Your task to perform on an android device: Open location settings Image 0: 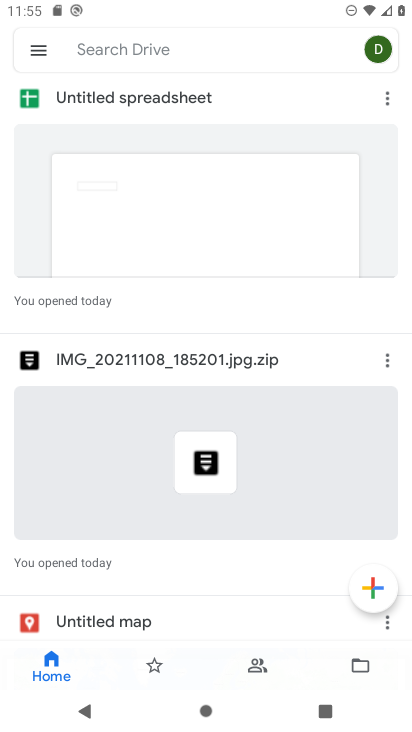
Step 0: press home button
Your task to perform on an android device: Open location settings Image 1: 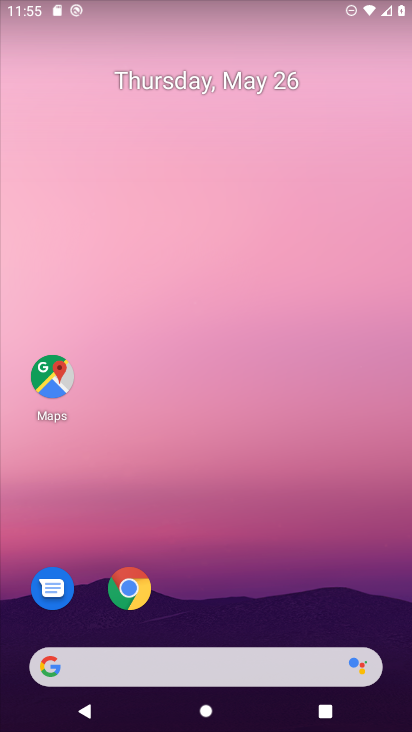
Step 1: drag from (376, 623) to (342, 58)
Your task to perform on an android device: Open location settings Image 2: 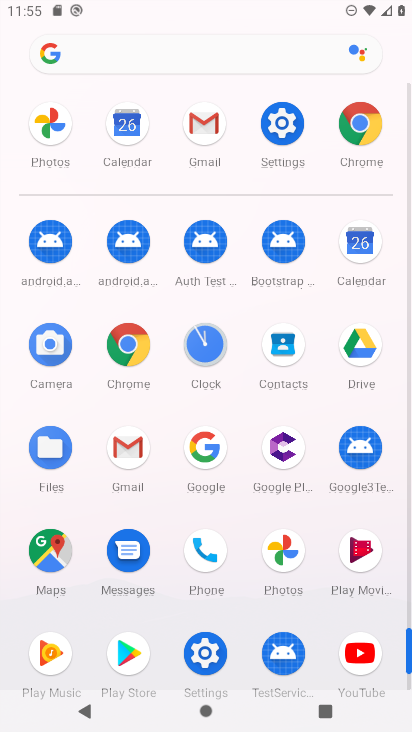
Step 2: click (203, 653)
Your task to perform on an android device: Open location settings Image 3: 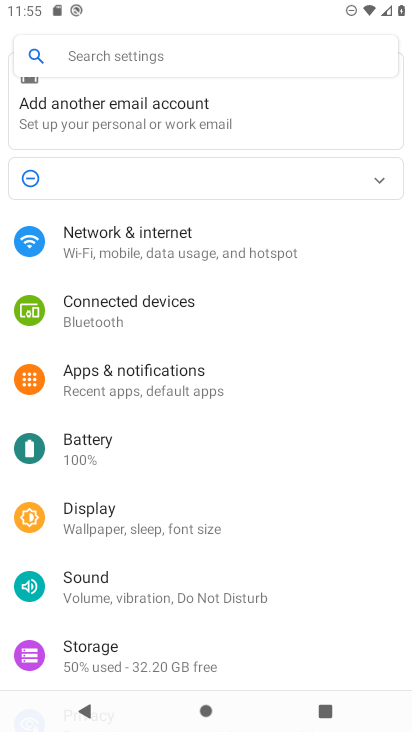
Step 3: drag from (317, 612) to (285, 113)
Your task to perform on an android device: Open location settings Image 4: 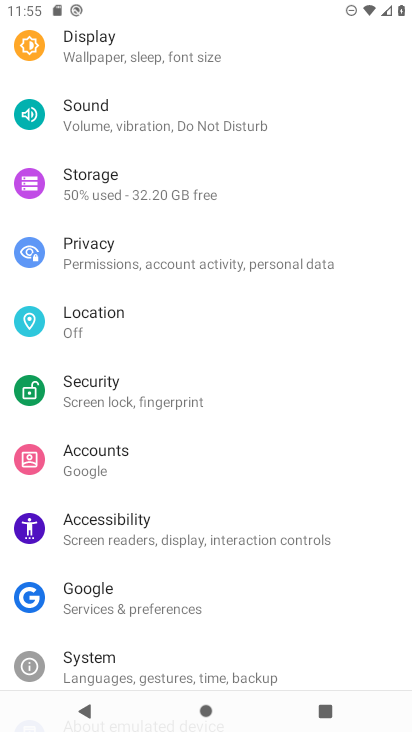
Step 4: click (79, 318)
Your task to perform on an android device: Open location settings Image 5: 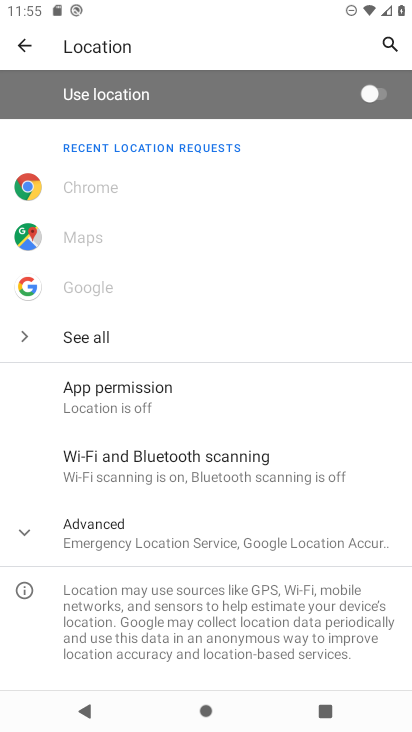
Step 5: click (22, 524)
Your task to perform on an android device: Open location settings Image 6: 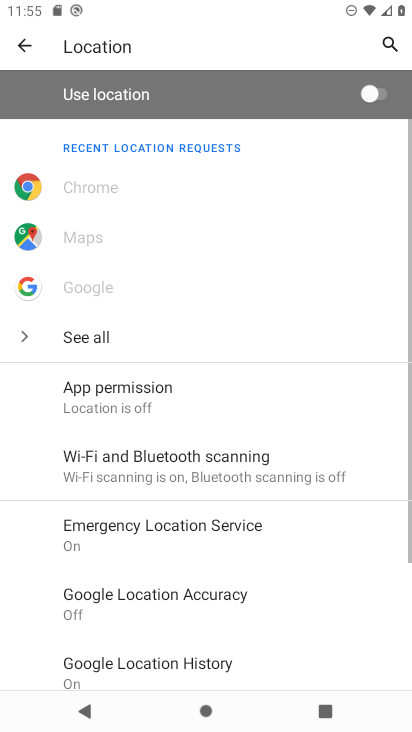
Step 6: task complete